Your task to perform on an android device: turn on javascript in the chrome app Image 0: 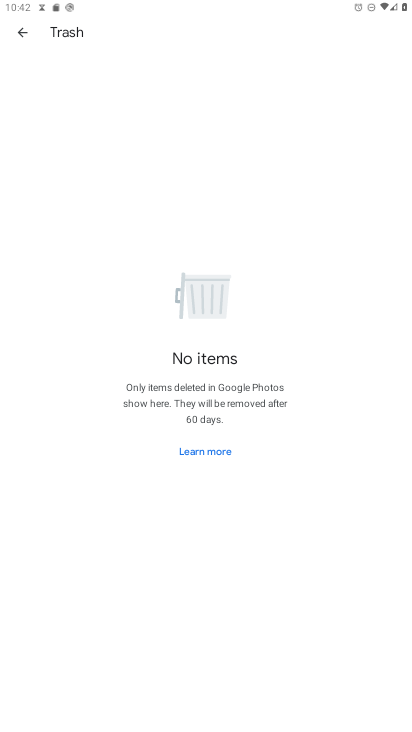
Step 0: press home button
Your task to perform on an android device: turn on javascript in the chrome app Image 1: 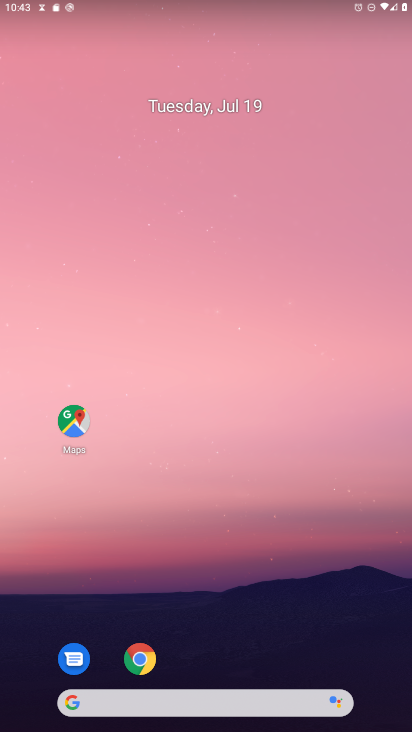
Step 1: drag from (191, 667) to (194, 431)
Your task to perform on an android device: turn on javascript in the chrome app Image 2: 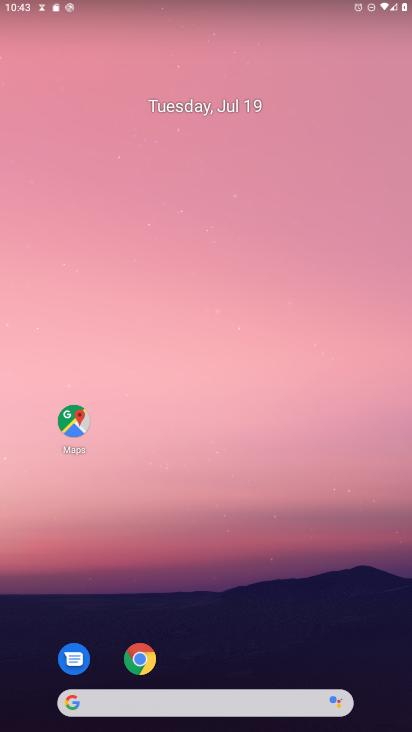
Step 2: drag from (254, 645) to (250, 172)
Your task to perform on an android device: turn on javascript in the chrome app Image 3: 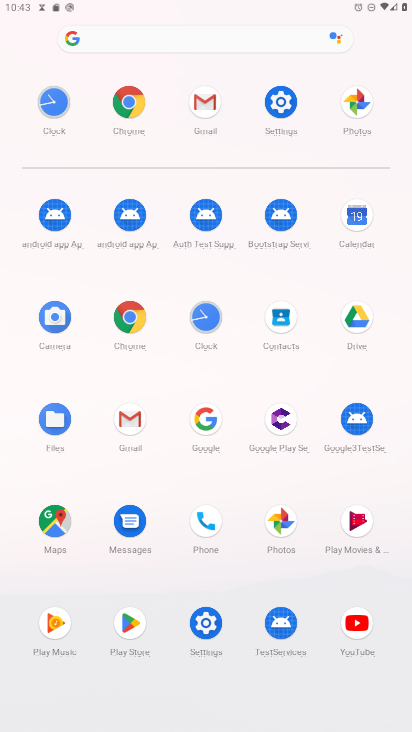
Step 3: click (127, 89)
Your task to perform on an android device: turn on javascript in the chrome app Image 4: 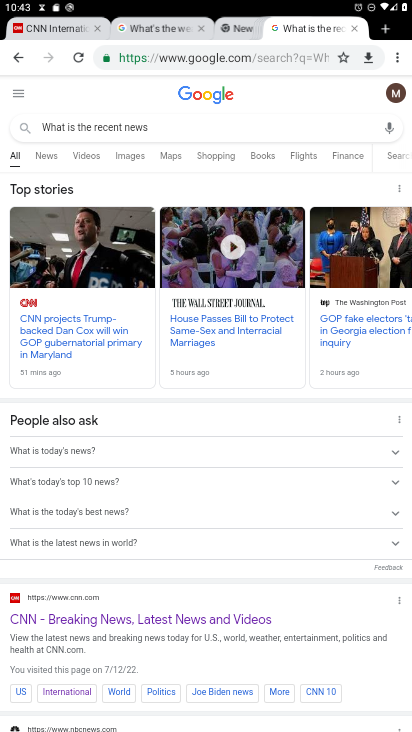
Step 4: click (401, 53)
Your task to perform on an android device: turn on javascript in the chrome app Image 5: 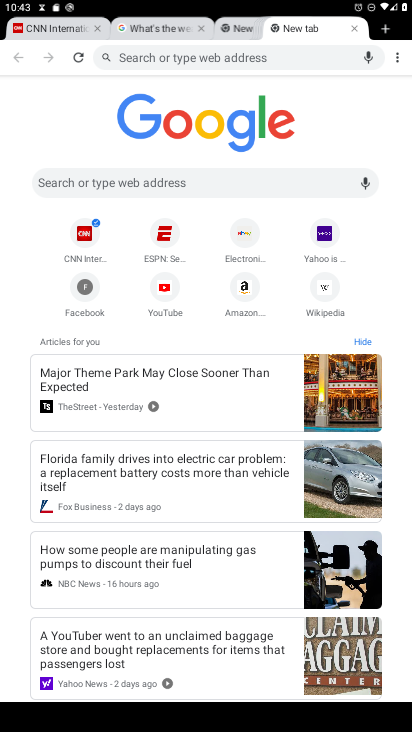
Step 5: click (401, 62)
Your task to perform on an android device: turn on javascript in the chrome app Image 6: 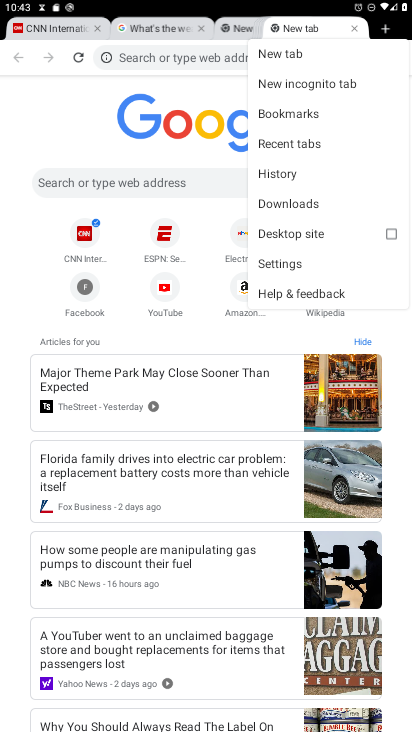
Step 6: click (277, 262)
Your task to perform on an android device: turn on javascript in the chrome app Image 7: 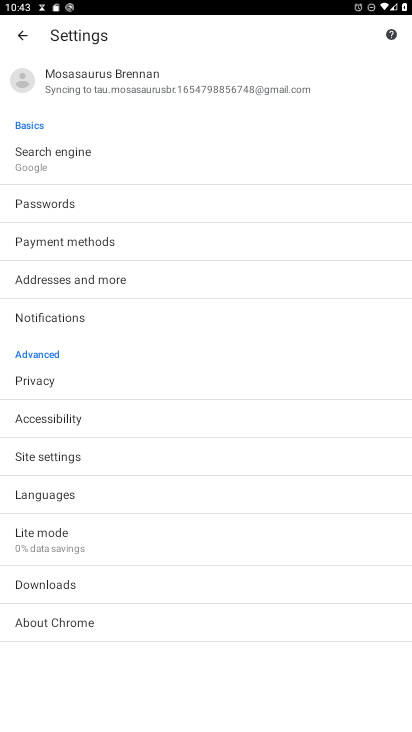
Step 7: click (72, 450)
Your task to perform on an android device: turn on javascript in the chrome app Image 8: 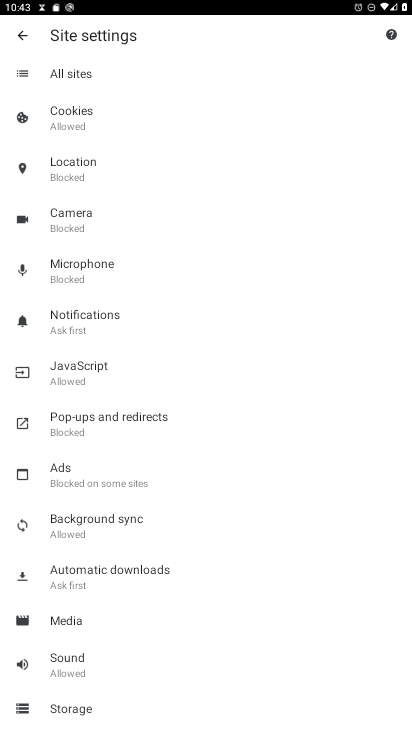
Step 8: click (80, 363)
Your task to perform on an android device: turn on javascript in the chrome app Image 9: 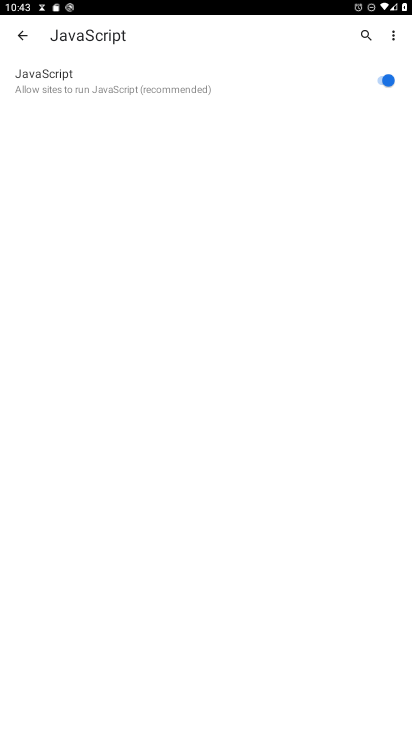
Step 9: task complete